Your task to perform on an android device: remove spam from my inbox in the gmail app Image 0: 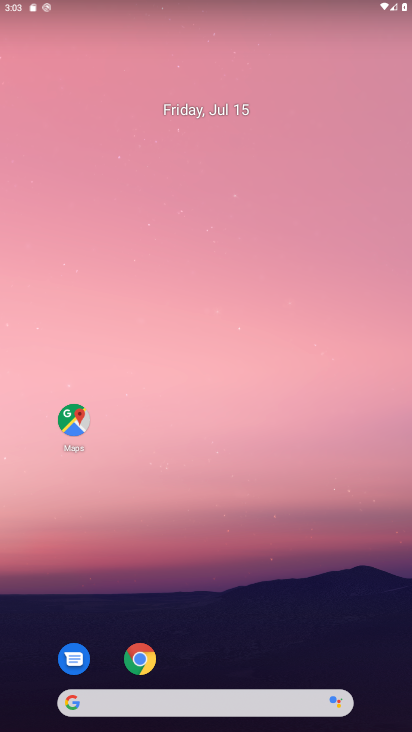
Step 0: drag from (332, 587) to (314, 197)
Your task to perform on an android device: remove spam from my inbox in the gmail app Image 1: 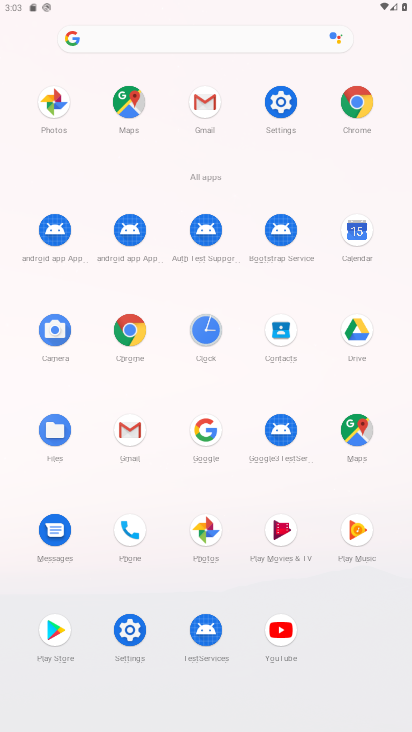
Step 1: click (208, 105)
Your task to perform on an android device: remove spam from my inbox in the gmail app Image 2: 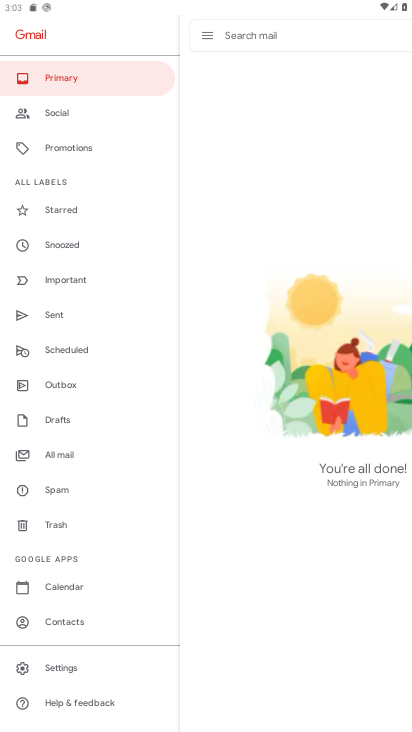
Step 2: click (49, 482)
Your task to perform on an android device: remove spam from my inbox in the gmail app Image 3: 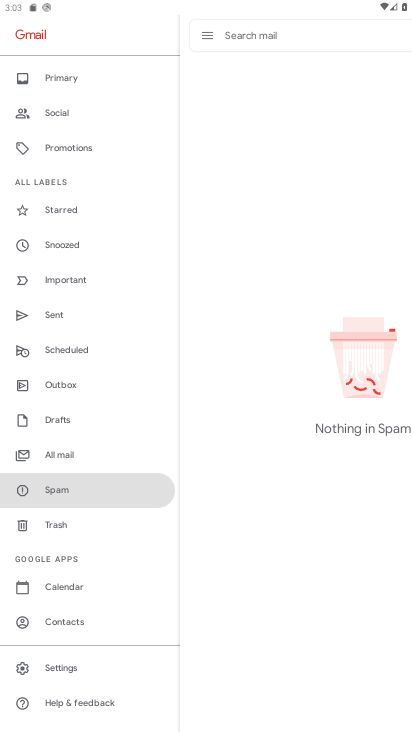
Step 3: task complete